Your task to perform on an android device: Open my contact list Image 0: 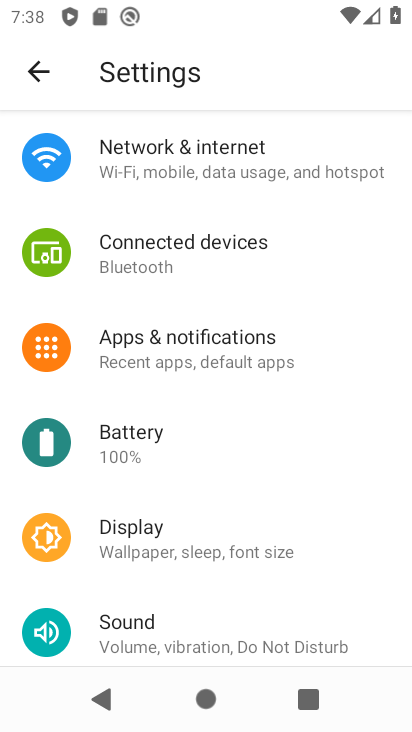
Step 0: press home button
Your task to perform on an android device: Open my contact list Image 1: 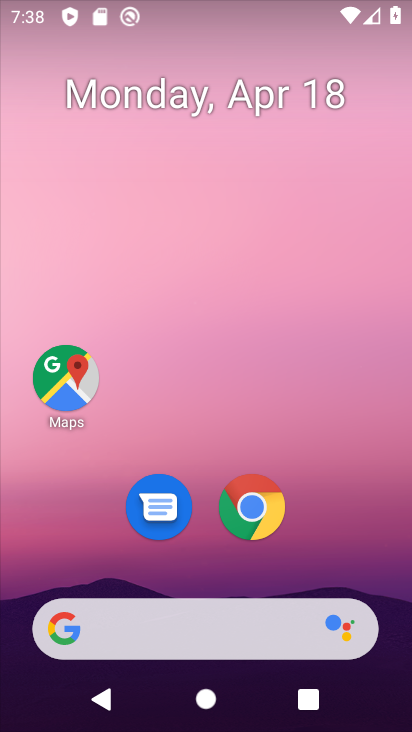
Step 1: drag from (204, 553) to (201, 273)
Your task to perform on an android device: Open my contact list Image 2: 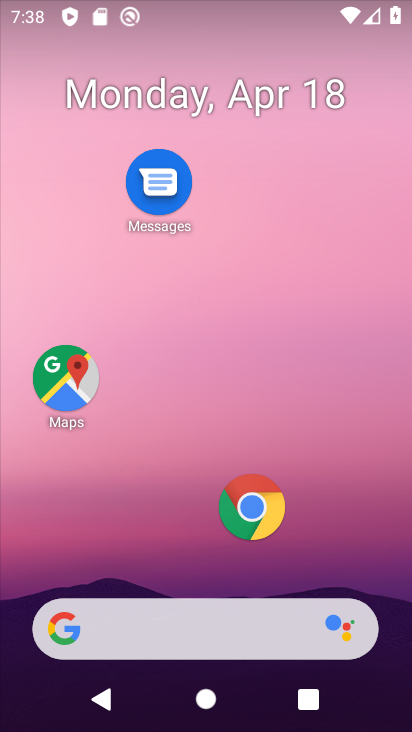
Step 2: drag from (223, 497) to (178, 148)
Your task to perform on an android device: Open my contact list Image 3: 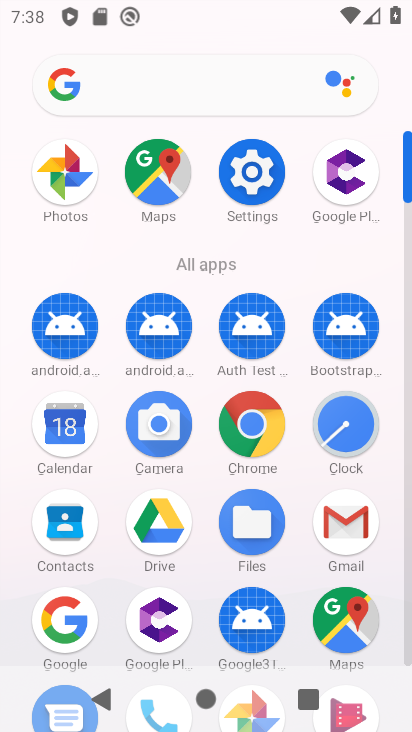
Step 3: click (56, 523)
Your task to perform on an android device: Open my contact list Image 4: 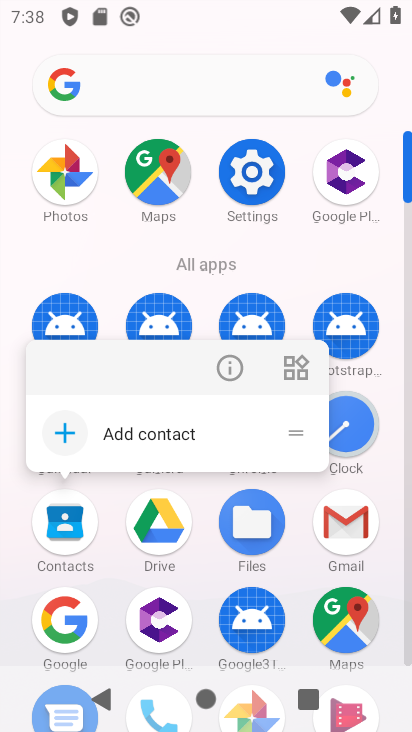
Step 4: click (66, 530)
Your task to perform on an android device: Open my contact list Image 5: 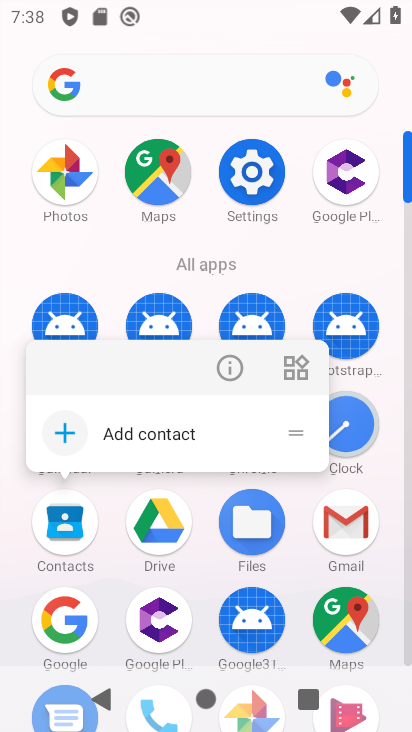
Step 5: click (68, 530)
Your task to perform on an android device: Open my contact list Image 6: 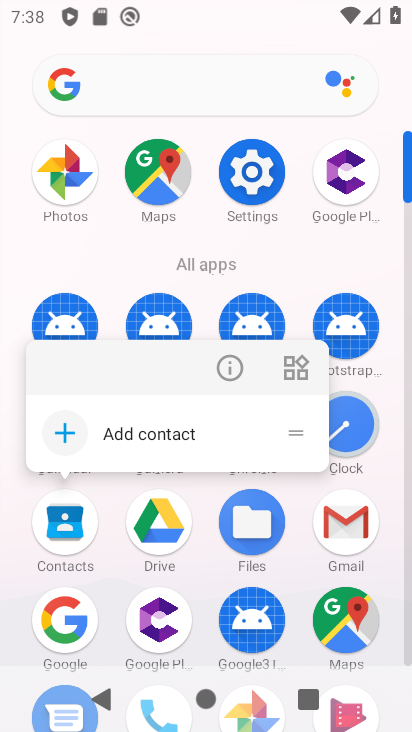
Step 6: click (65, 526)
Your task to perform on an android device: Open my contact list Image 7: 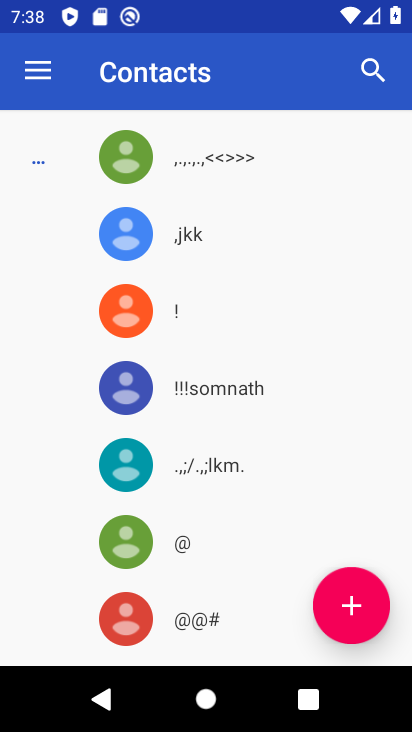
Step 7: task complete